Your task to perform on an android device: turn vacation reply on in the gmail app Image 0: 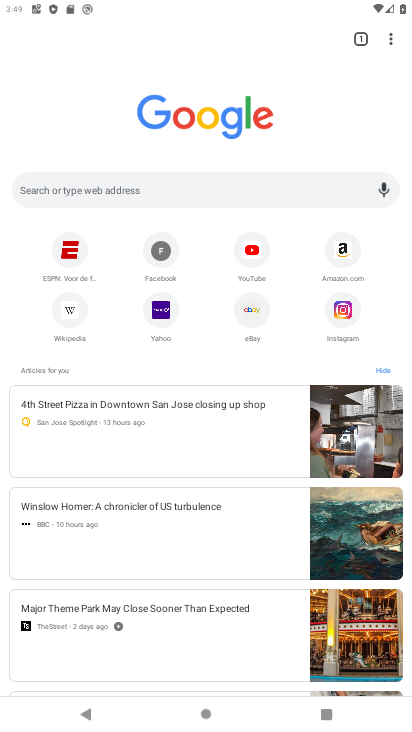
Step 0: click (396, 40)
Your task to perform on an android device: turn vacation reply on in the gmail app Image 1: 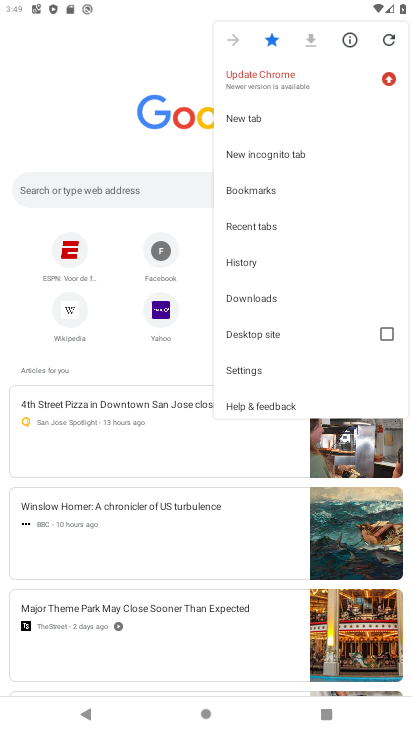
Step 1: click (236, 368)
Your task to perform on an android device: turn vacation reply on in the gmail app Image 2: 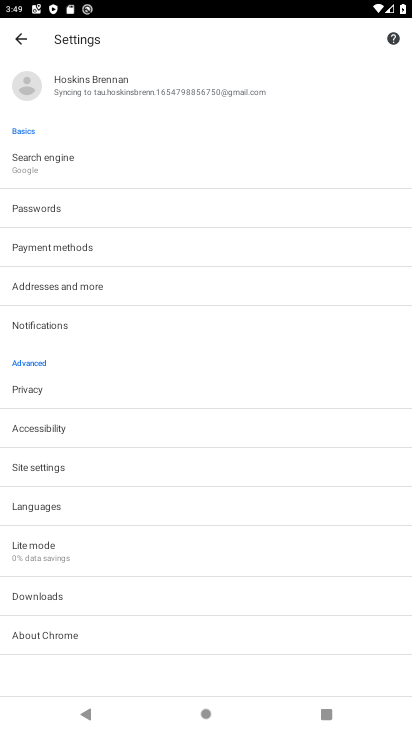
Step 2: task complete